Your task to perform on an android device: open sync settings in chrome Image 0: 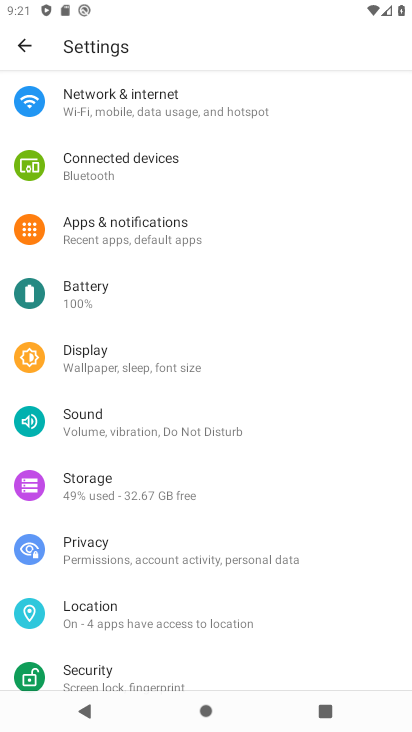
Step 0: press home button
Your task to perform on an android device: open sync settings in chrome Image 1: 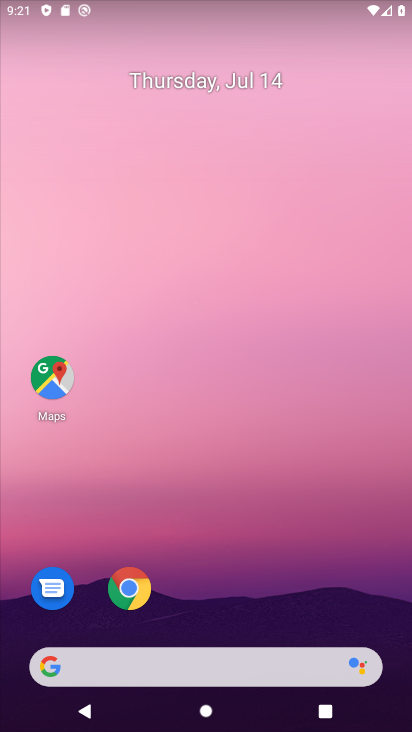
Step 1: click (132, 594)
Your task to perform on an android device: open sync settings in chrome Image 2: 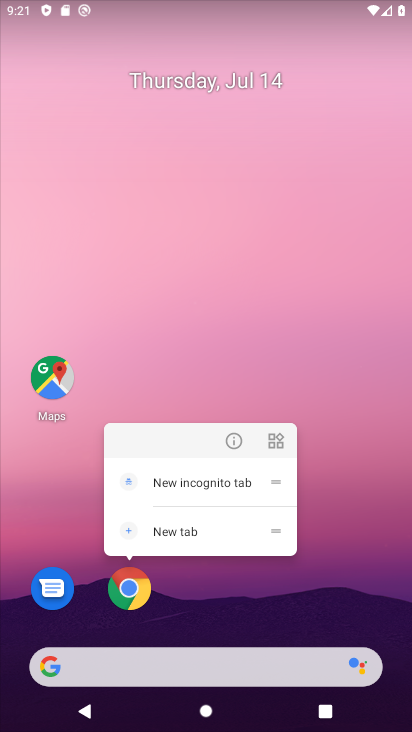
Step 2: click (132, 594)
Your task to perform on an android device: open sync settings in chrome Image 3: 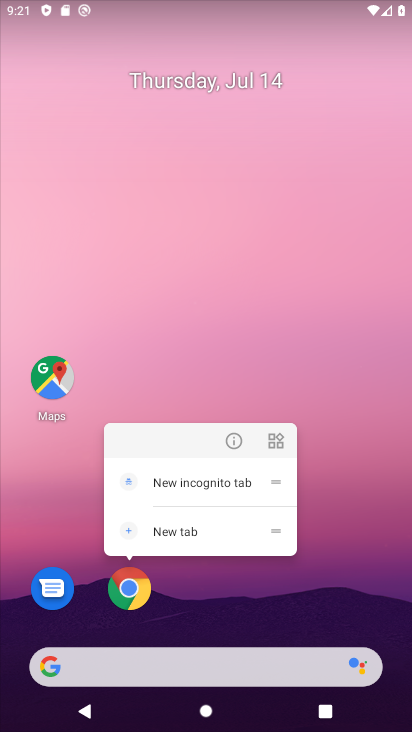
Step 3: click (132, 594)
Your task to perform on an android device: open sync settings in chrome Image 4: 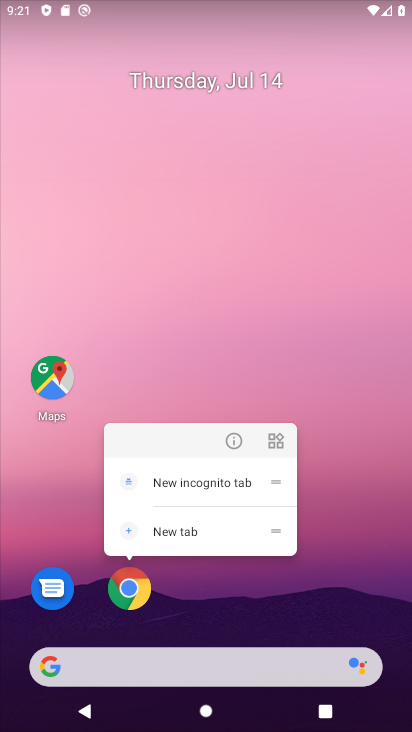
Step 4: click (132, 594)
Your task to perform on an android device: open sync settings in chrome Image 5: 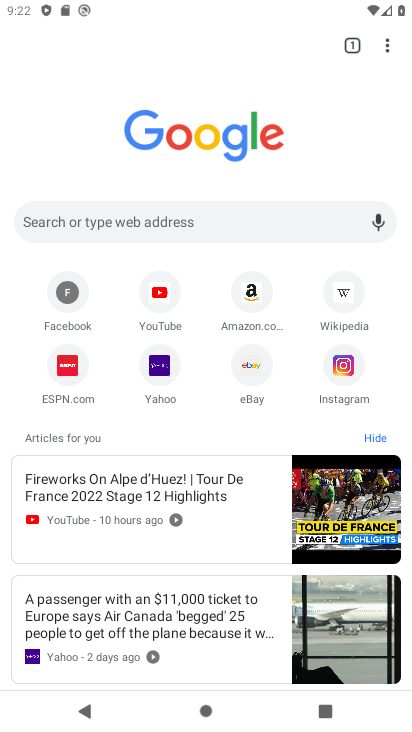
Step 5: click (385, 37)
Your task to perform on an android device: open sync settings in chrome Image 6: 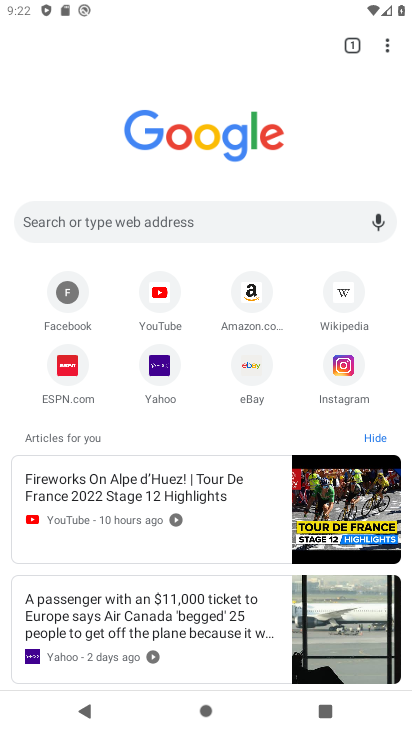
Step 6: click (384, 46)
Your task to perform on an android device: open sync settings in chrome Image 7: 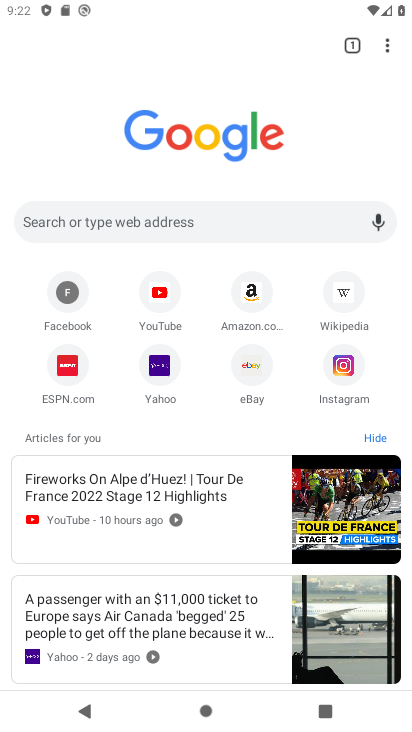
Step 7: click (389, 44)
Your task to perform on an android device: open sync settings in chrome Image 8: 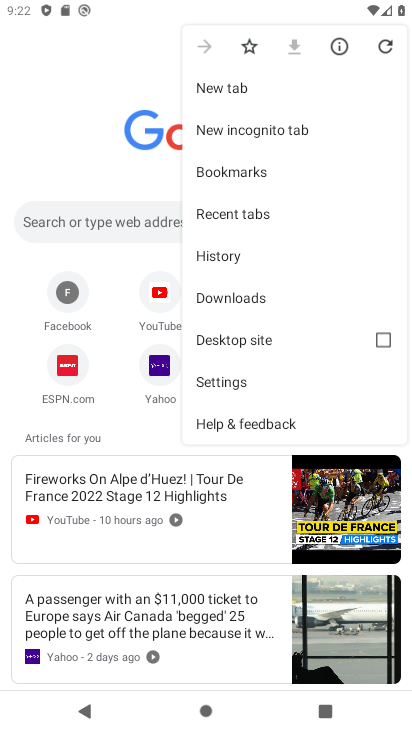
Step 8: click (233, 383)
Your task to perform on an android device: open sync settings in chrome Image 9: 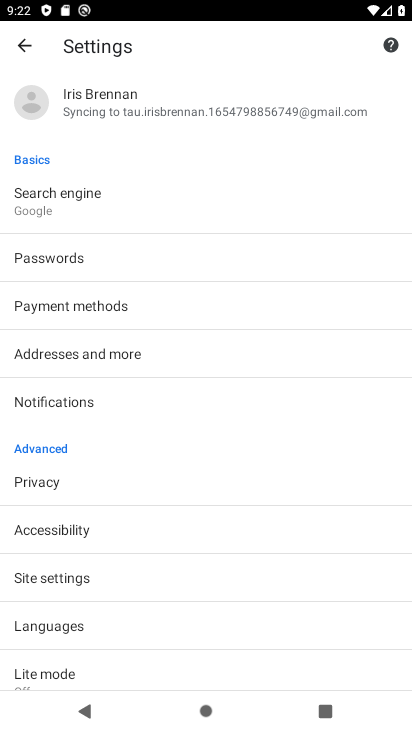
Step 9: click (92, 113)
Your task to perform on an android device: open sync settings in chrome Image 10: 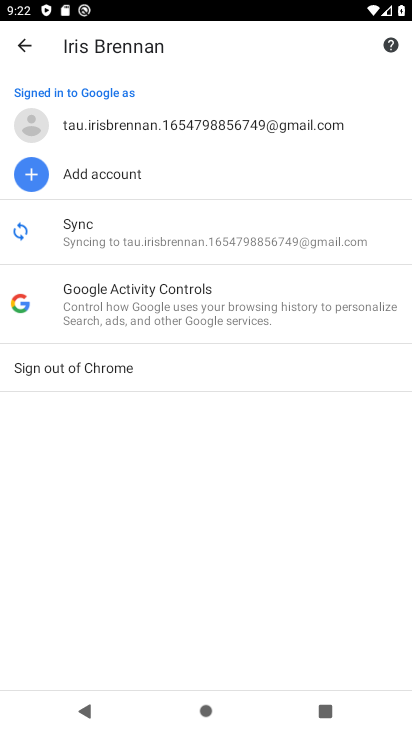
Step 10: click (102, 239)
Your task to perform on an android device: open sync settings in chrome Image 11: 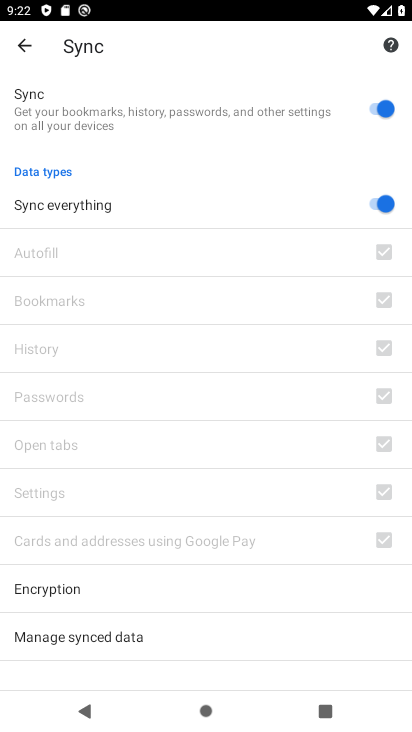
Step 11: task complete